Your task to perform on an android device: turn off improve location accuracy Image 0: 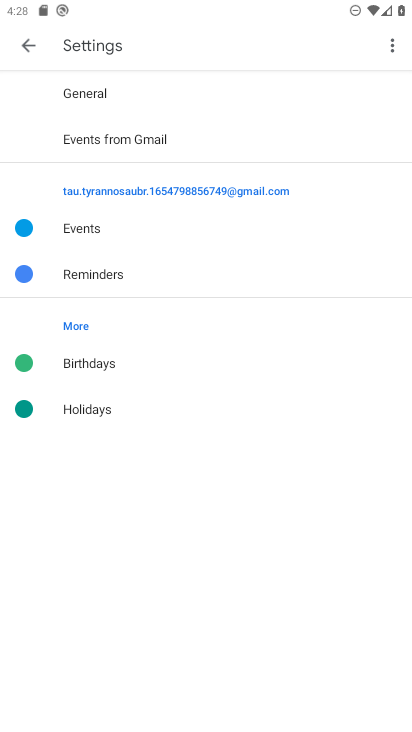
Step 0: press home button
Your task to perform on an android device: turn off improve location accuracy Image 1: 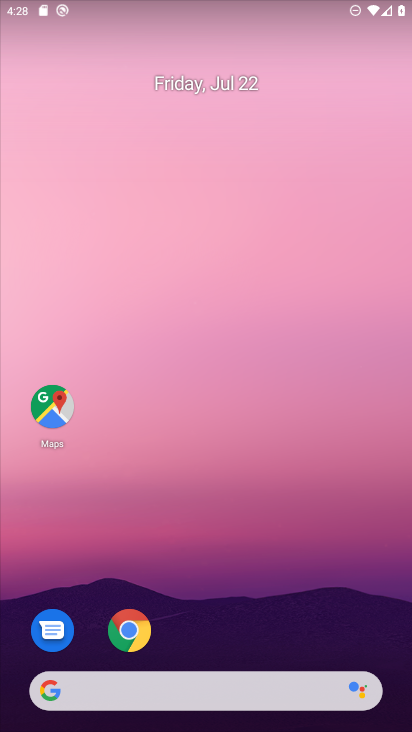
Step 1: drag from (276, 639) to (380, 3)
Your task to perform on an android device: turn off improve location accuracy Image 2: 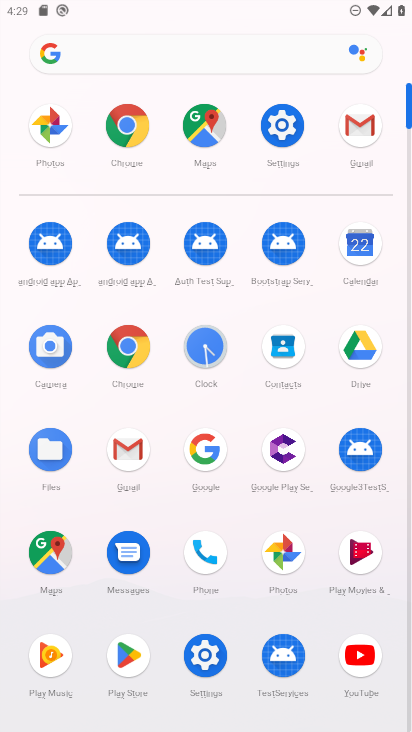
Step 2: click (284, 143)
Your task to perform on an android device: turn off improve location accuracy Image 3: 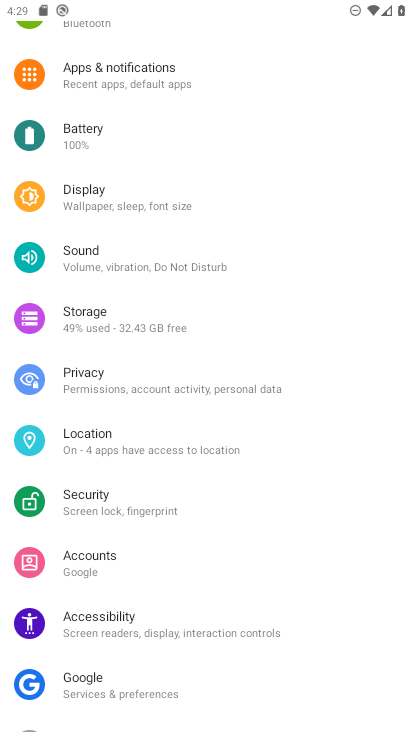
Step 3: click (114, 440)
Your task to perform on an android device: turn off improve location accuracy Image 4: 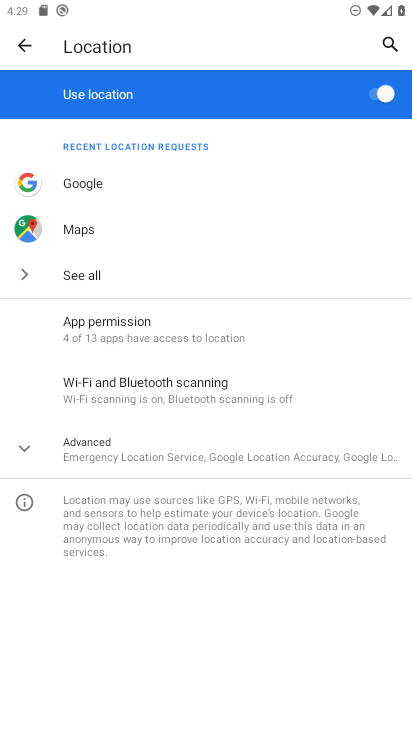
Step 4: click (145, 457)
Your task to perform on an android device: turn off improve location accuracy Image 5: 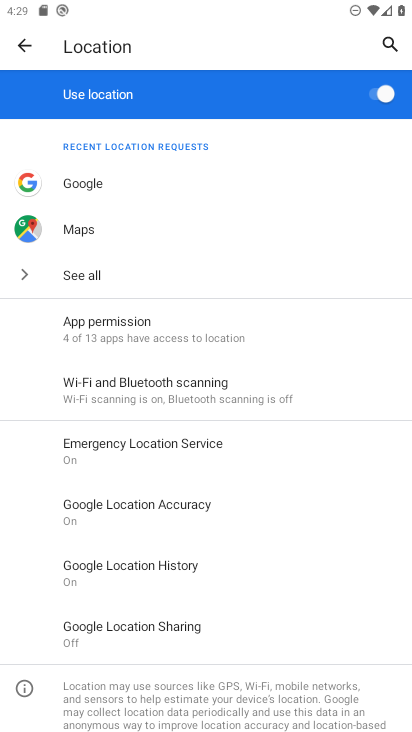
Step 5: click (136, 505)
Your task to perform on an android device: turn off improve location accuracy Image 6: 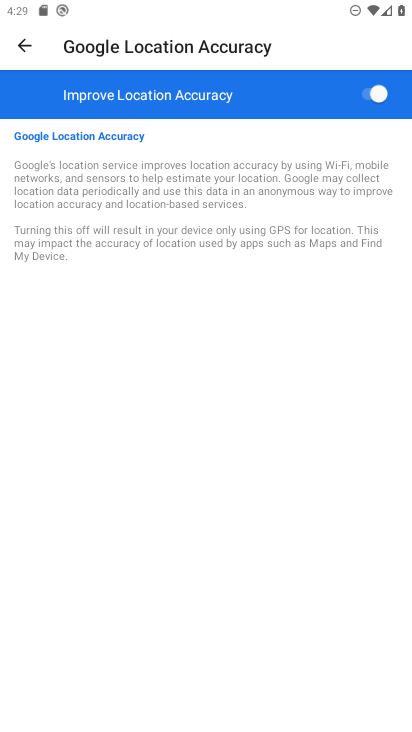
Step 6: click (341, 99)
Your task to perform on an android device: turn off improve location accuracy Image 7: 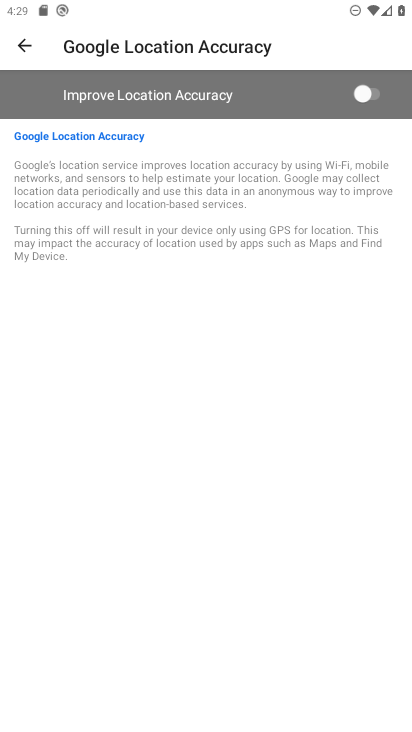
Step 7: task complete